Your task to perform on an android device: Open Google Image 0: 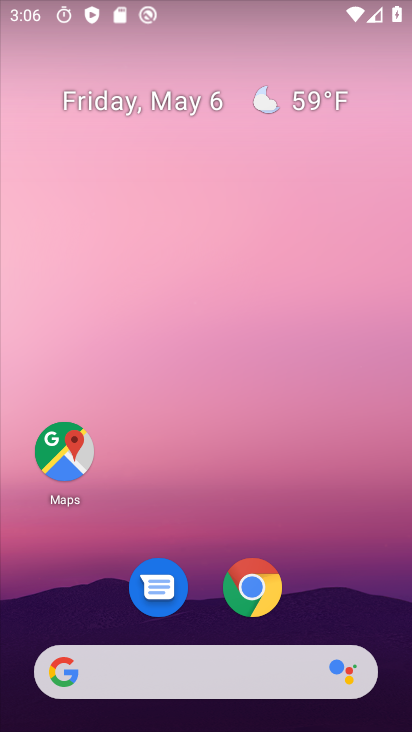
Step 0: click (63, 670)
Your task to perform on an android device: Open Google Image 1: 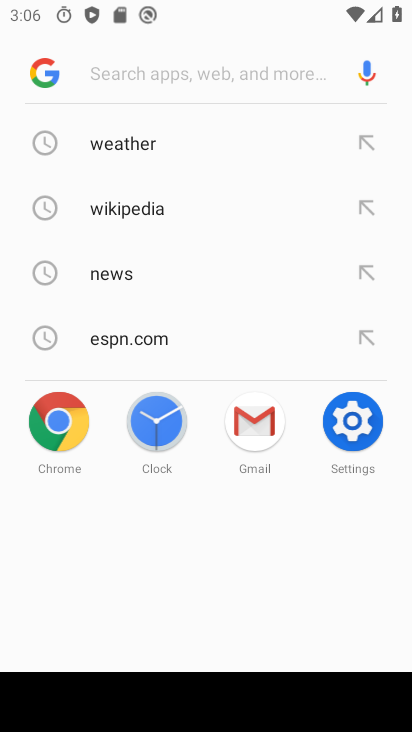
Step 1: click (36, 73)
Your task to perform on an android device: Open Google Image 2: 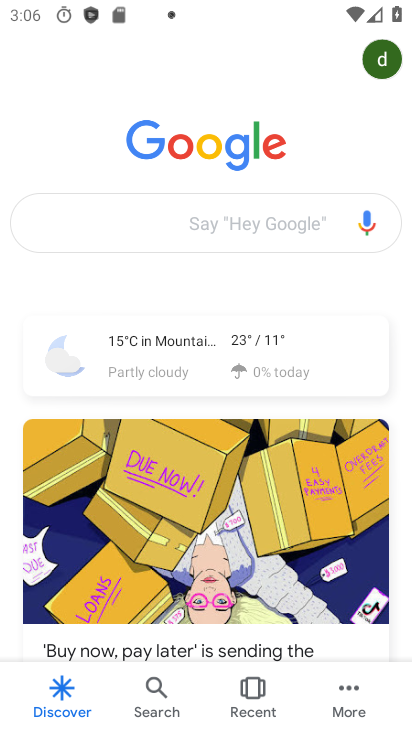
Step 2: task complete